Your task to perform on an android device: Empty the shopping cart on walmart.com. Search for logitech g502 on walmart.com, select the first entry, and add it to the cart. Image 0: 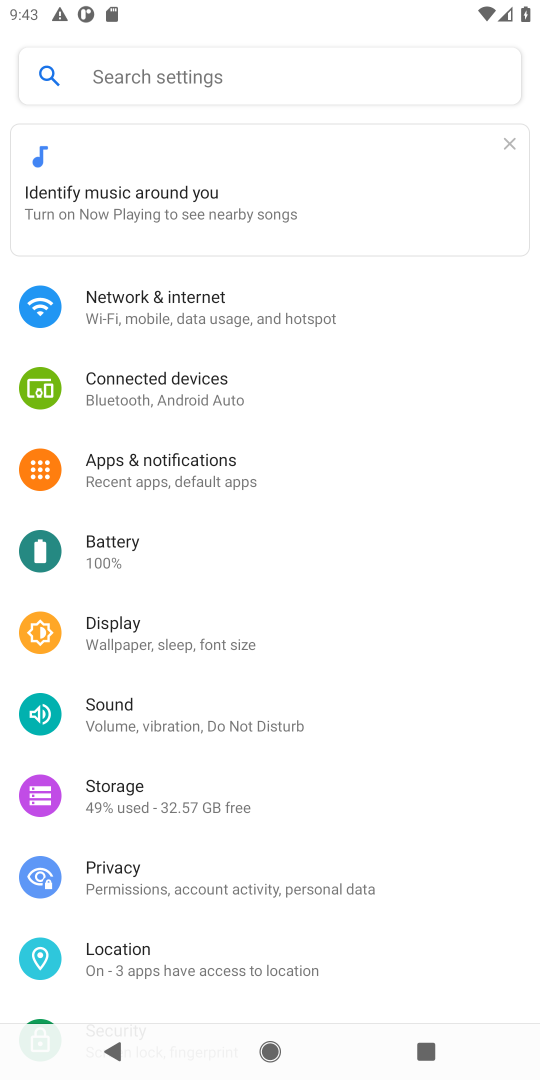
Step 0: press home button
Your task to perform on an android device: Empty the shopping cart on walmart.com. Search for logitech g502 on walmart.com, select the first entry, and add it to the cart. Image 1: 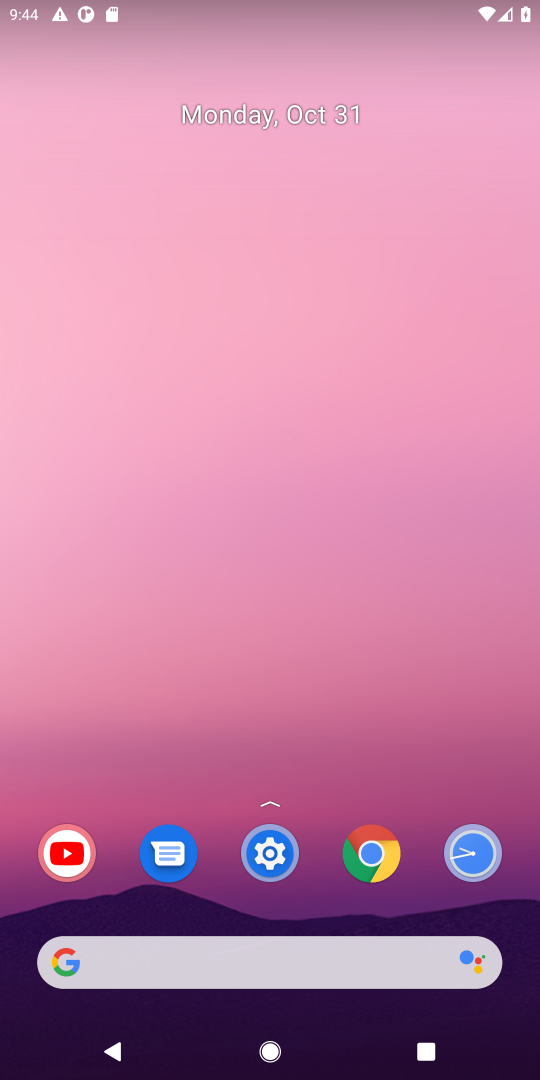
Step 1: click (278, 961)
Your task to perform on an android device: Empty the shopping cart on walmart.com. Search for logitech g502 on walmart.com, select the first entry, and add it to the cart. Image 2: 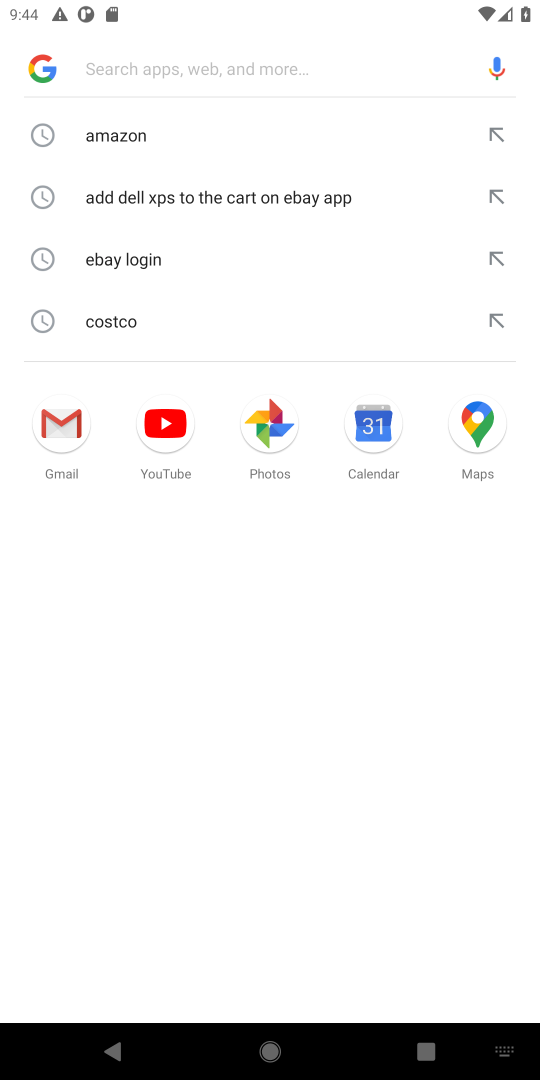
Step 2: type "walmart.com"
Your task to perform on an android device: Empty the shopping cart on walmart.com. Search for logitech g502 on walmart.com, select the first entry, and add it to the cart. Image 3: 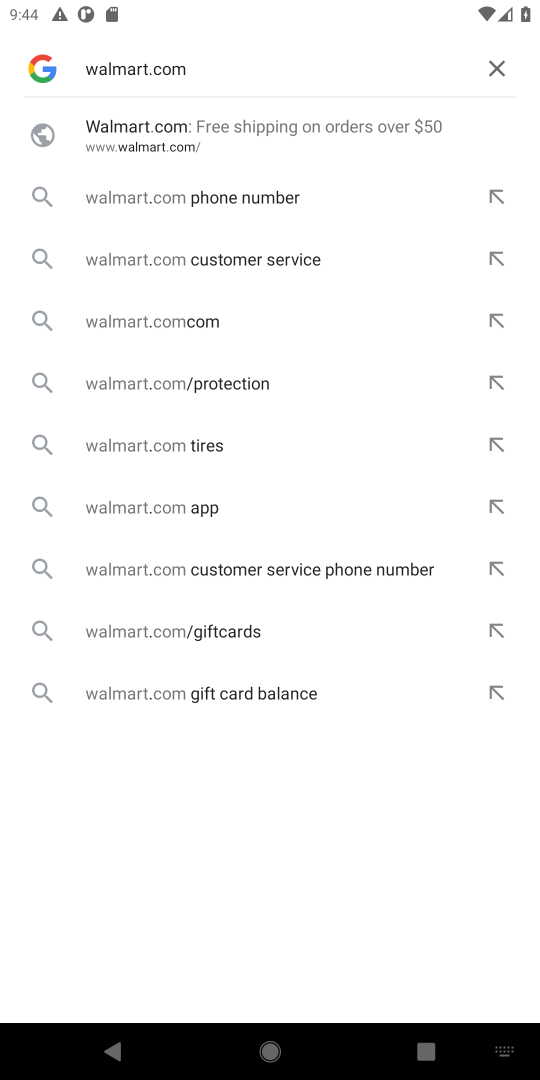
Step 3: click (190, 133)
Your task to perform on an android device: Empty the shopping cart on walmart.com. Search for logitech g502 on walmart.com, select the first entry, and add it to the cart. Image 4: 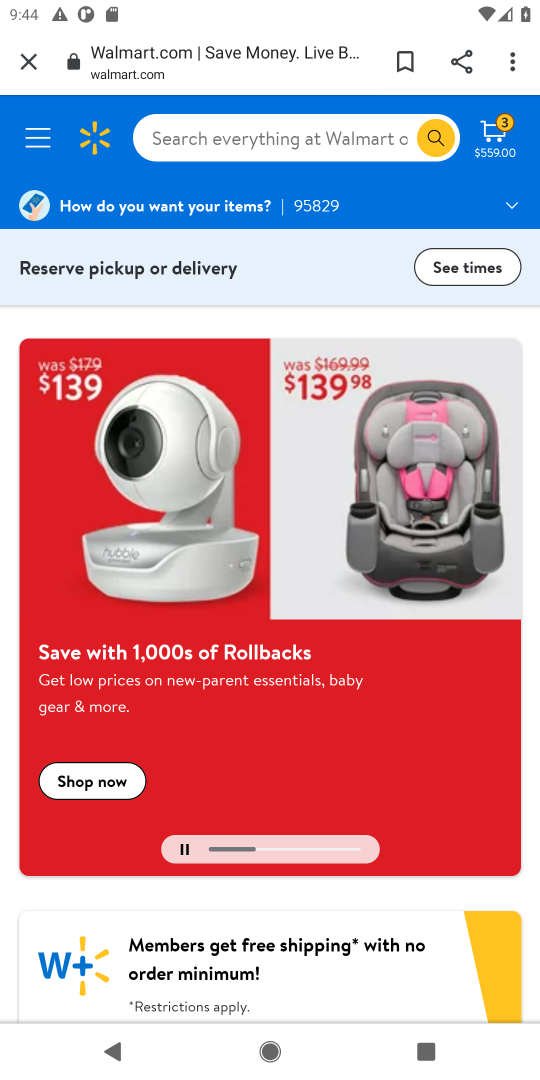
Step 4: click (500, 137)
Your task to perform on an android device: Empty the shopping cart on walmart.com. Search for logitech g502 on walmart.com, select the first entry, and add it to the cart. Image 5: 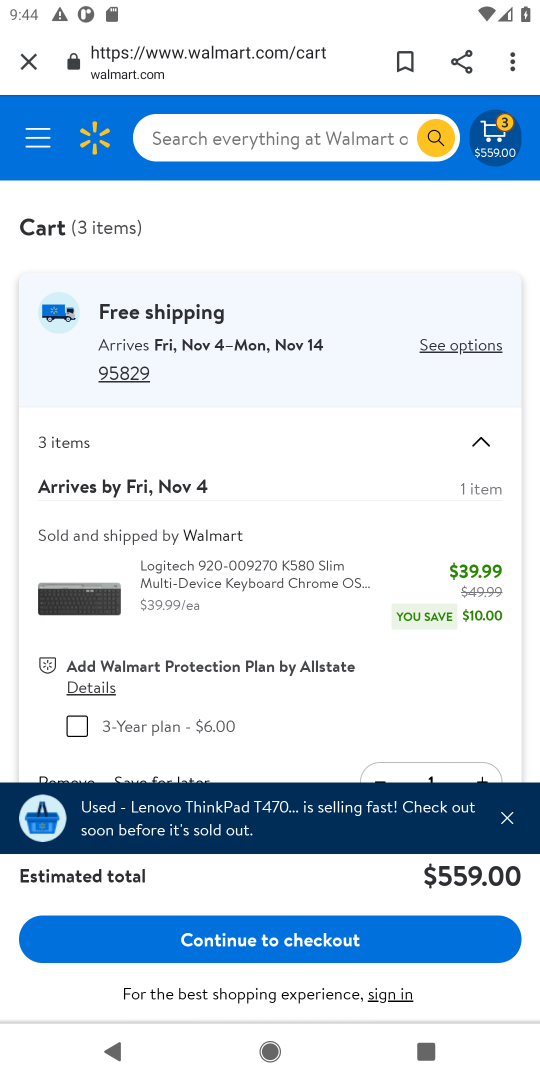
Step 5: click (510, 820)
Your task to perform on an android device: Empty the shopping cart on walmart.com. Search for logitech g502 on walmart.com, select the first entry, and add it to the cart. Image 6: 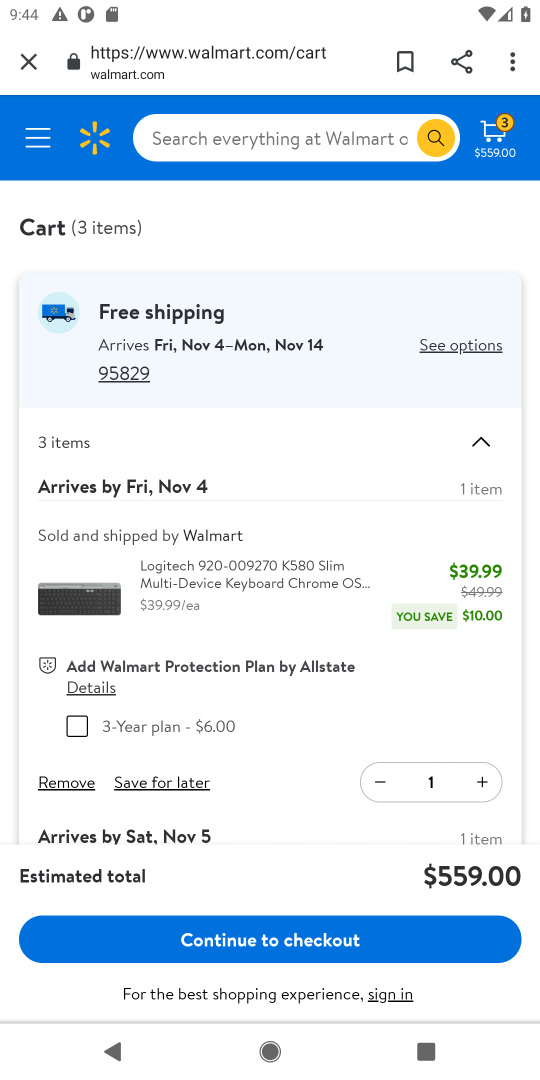
Step 6: click (60, 779)
Your task to perform on an android device: Empty the shopping cart on walmart.com. Search for logitech g502 on walmart.com, select the first entry, and add it to the cart. Image 7: 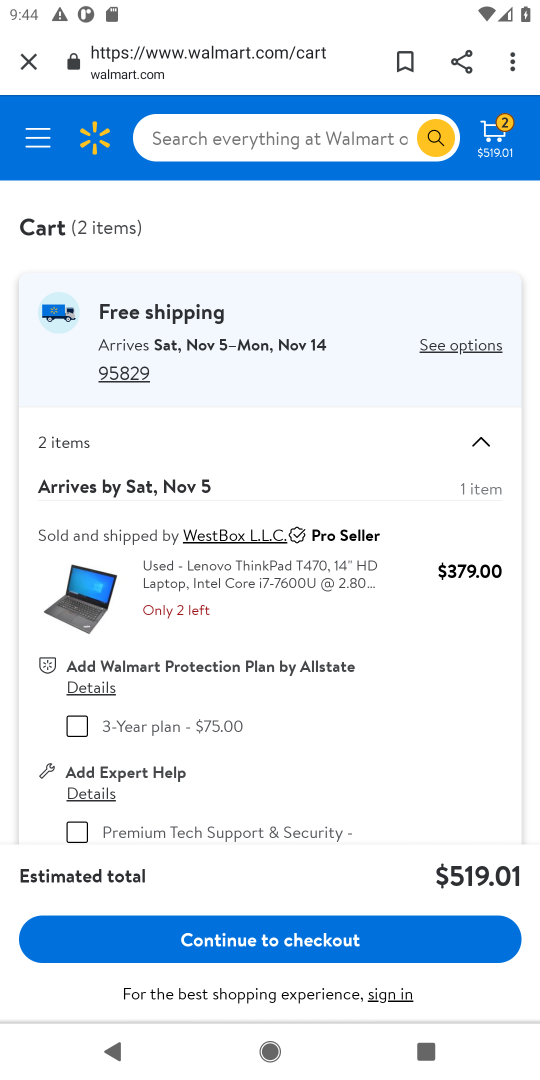
Step 7: drag from (362, 712) to (361, 628)
Your task to perform on an android device: Empty the shopping cart on walmart.com. Search for logitech g502 on walmart.com, select the first entry, and add it to the cart. Image 8: 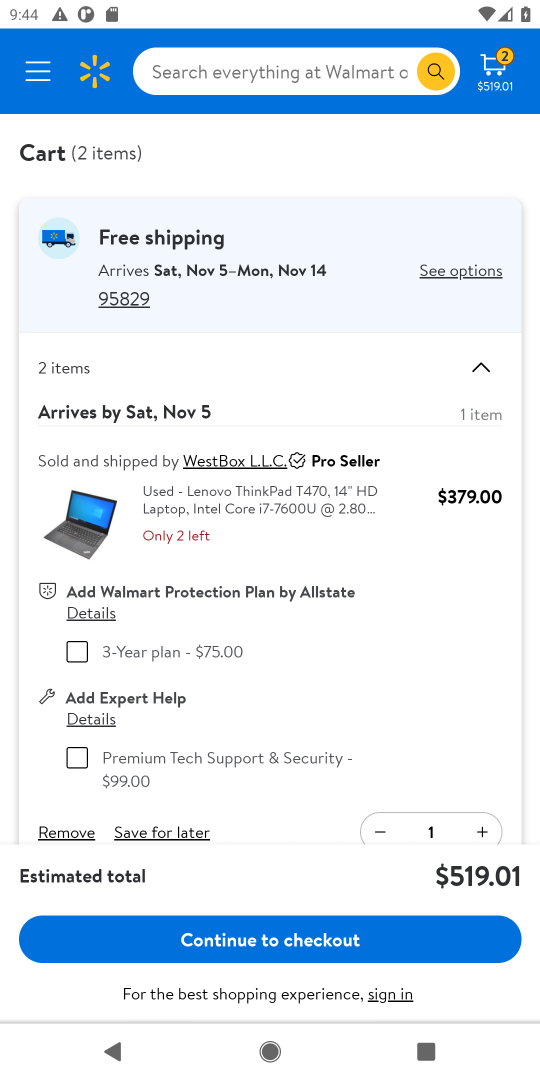
Step 8: click (69, 835)
Your task to perform on an android device: Empty the shopping cart on walmart.com. Search for logitech g502 on walmart.com, select the first entry, and add it to the cart. Image 9: 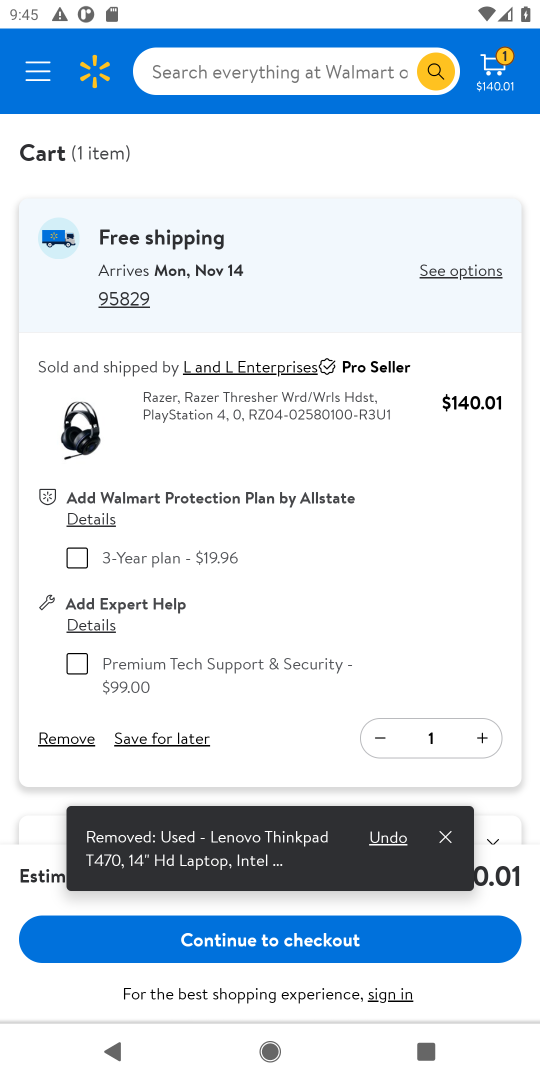
Step 9: click (59, 772)
Your task to perform on an android device: Empty the shopping cart on walmart.com. Search for logitech g502 on walmart.com, select the first entry, and add it to the cart. Image 10: 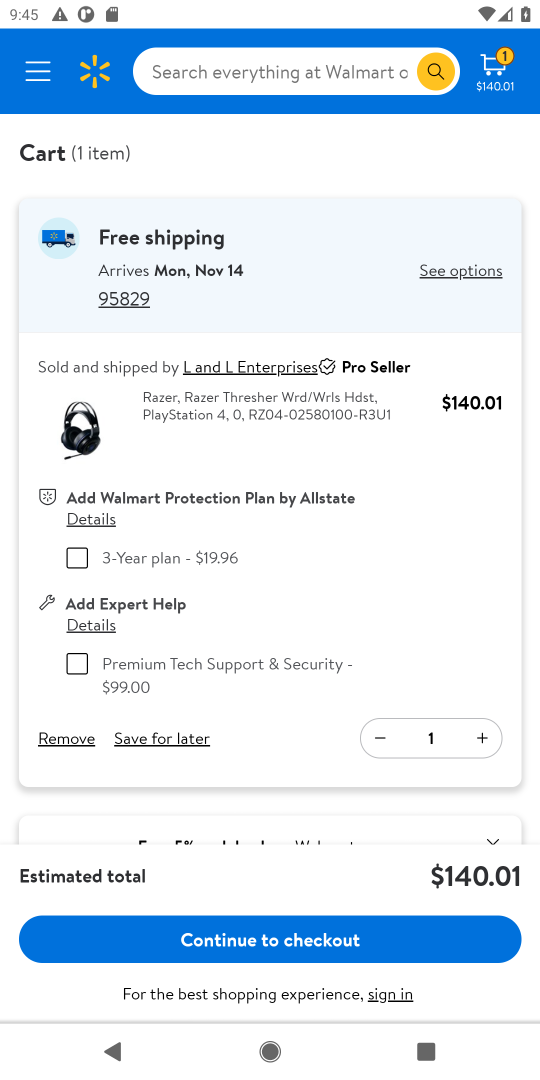
Step 10: click (56, 735)
Your task to perform on an android device: Empty the shopping cart on walmart.com. Search for logitech g502 on walmart.com, select the first entry, and add it to the cart. Image 11: 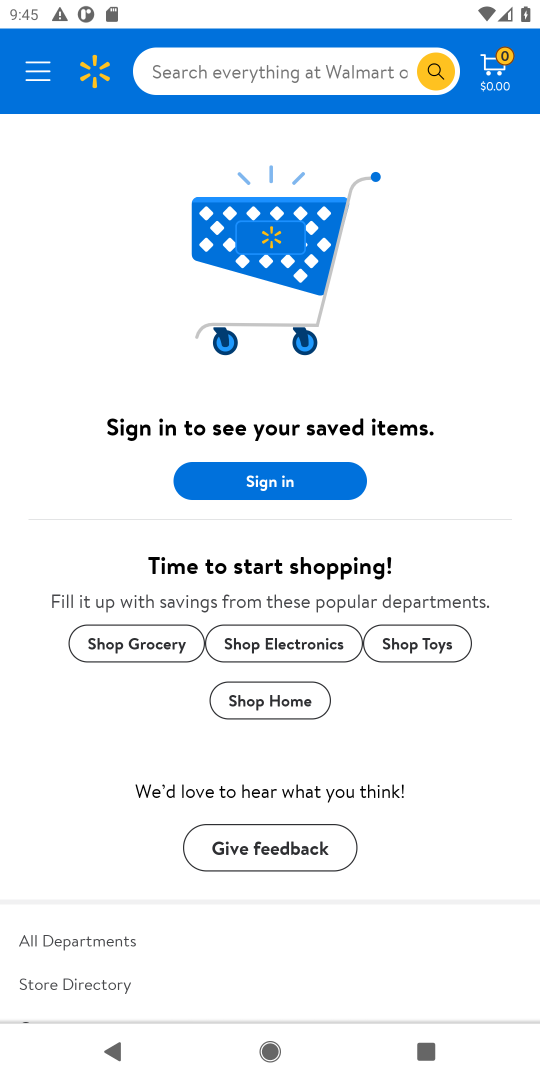
Step 11: click (252, 79)
Your task to perform on an android device: Empty the shopping cart on walmart.com. Search for logitech g502 on walmart.com, select the first entry, and add it to the cart. Image 12: 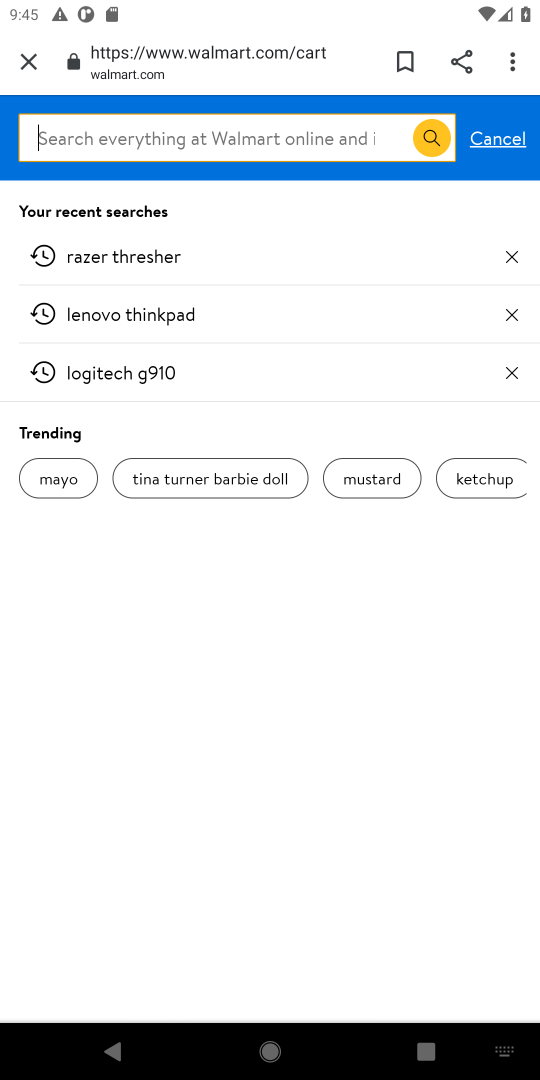
Step 12: type "logitech g502"
Your task to perform on an android device: Empty the shopping cart on walmart.com. Search for logitech g502 on walmart.com, select the first entry, and add it to the cart. Image 13: 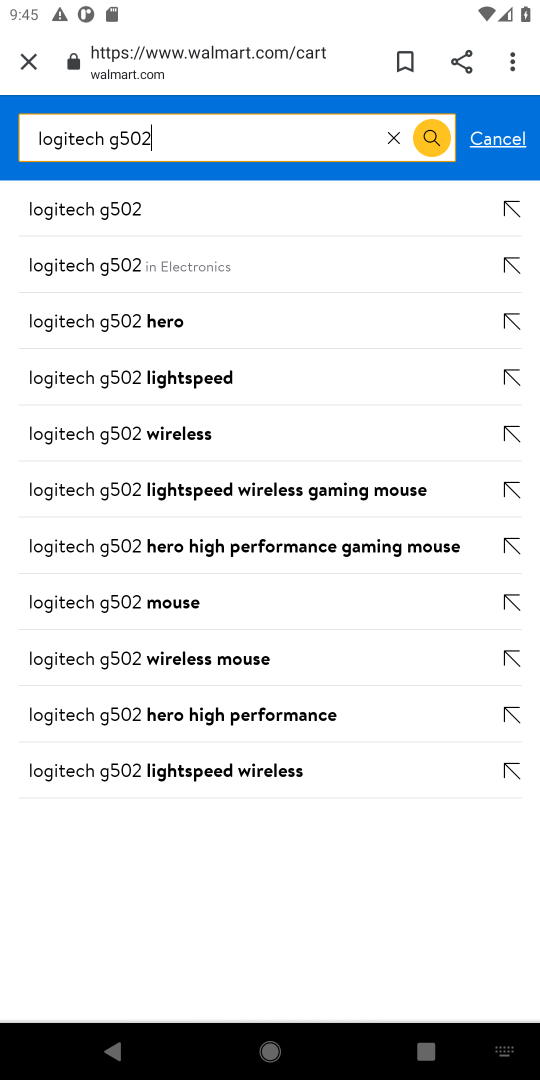
Step 13: click (509, 207)
Your task to perform on an android device: Empty the shopping cart on walmart.com. Search for logitech g502 on walmart.com, select the first entry, and add it to the cart. Image 14: 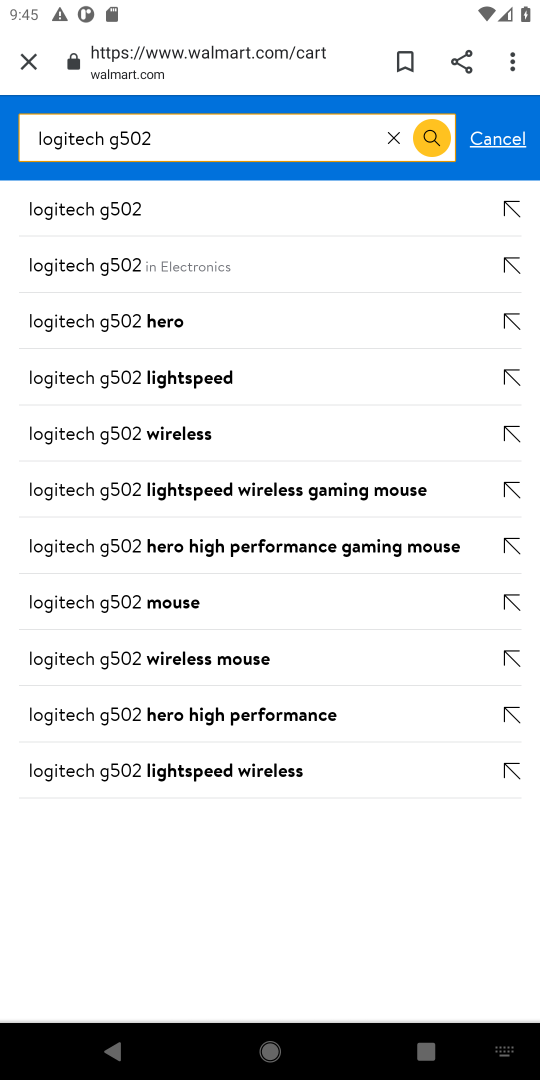
Step 14: click (112, 209)
Your task to perform on an android device: Empty the shopping cart on walmart.com. Search for logitech g502 on walmart.com, select the first entry, and add it to the cart. Image 15: 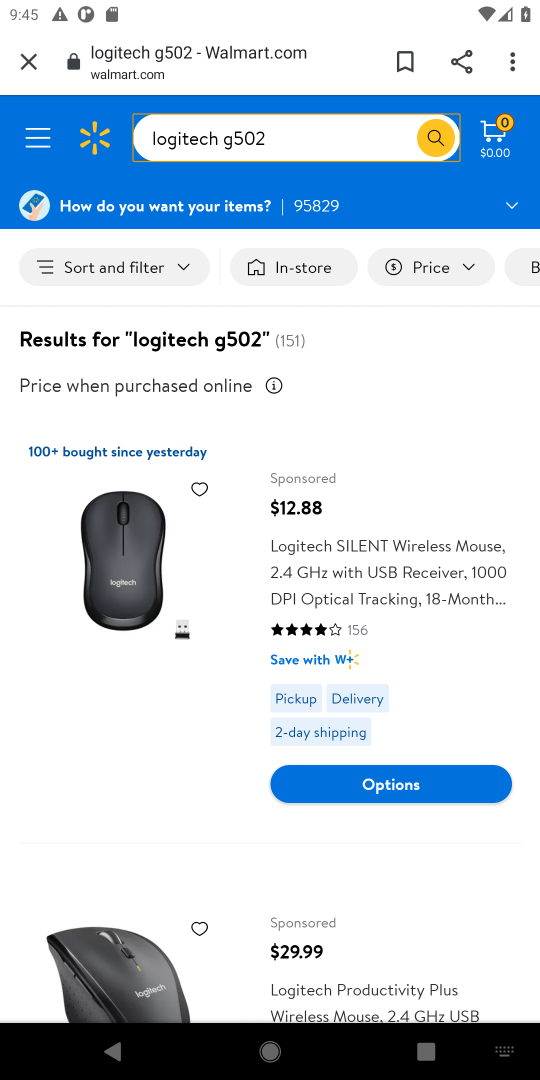
Step 15: click (295, 537)
Your task to perform on an android device: Empty the shopping cart on walmart.com. Search for logitech g502 on walmart.com, select the first entry, and add it to the cart. Image 16: 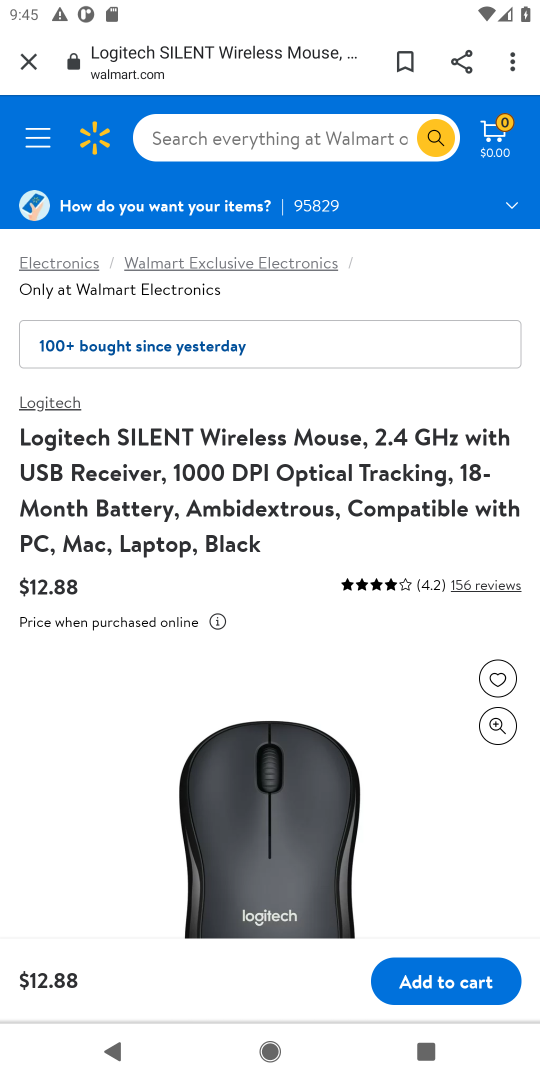
Step 16: click (434, 985)
Your task to perform on an android device: Empty the shopping cart on walmart.com. Search for logitech g502 on walmart.com, select the first entry, and add it to the cart. Image 17: 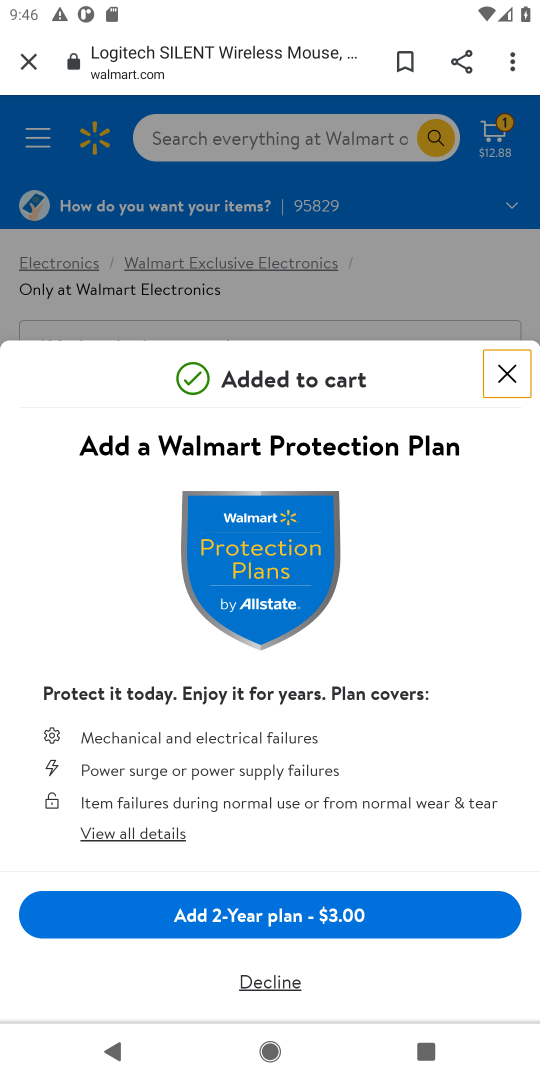
Step 17: click (255, 981)
Your task to perform on an android device: Empty the shopping cart on walmart.com. Search for logitech g502 on walmart.com, select the first entry, and add it to the cart. Image 18: 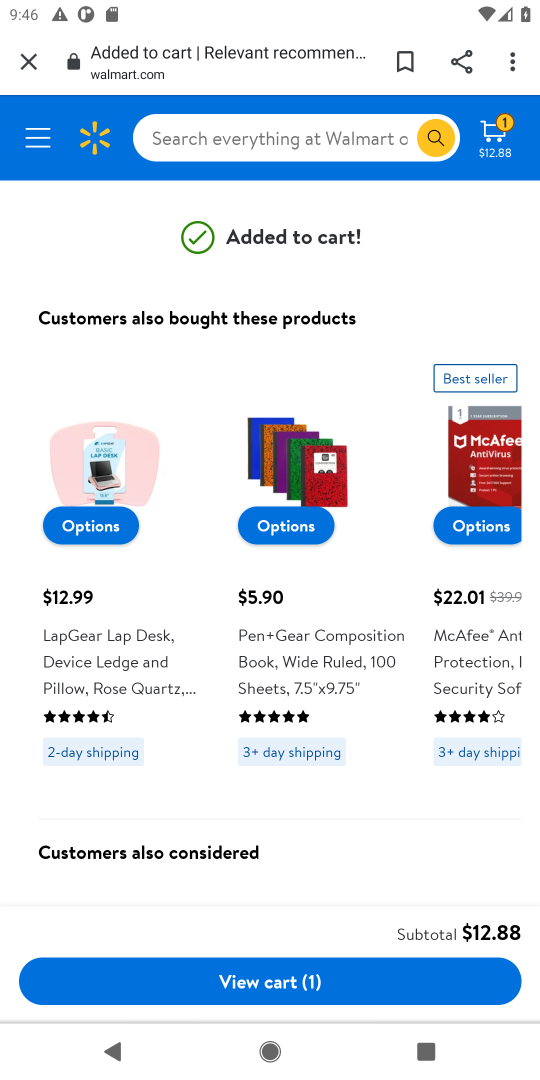
Step 18: task complete